Your task to perform on an android device: open app "ColorNote Notepad Notes" (install if not already installed), go to login, and select forgot password Image 0: 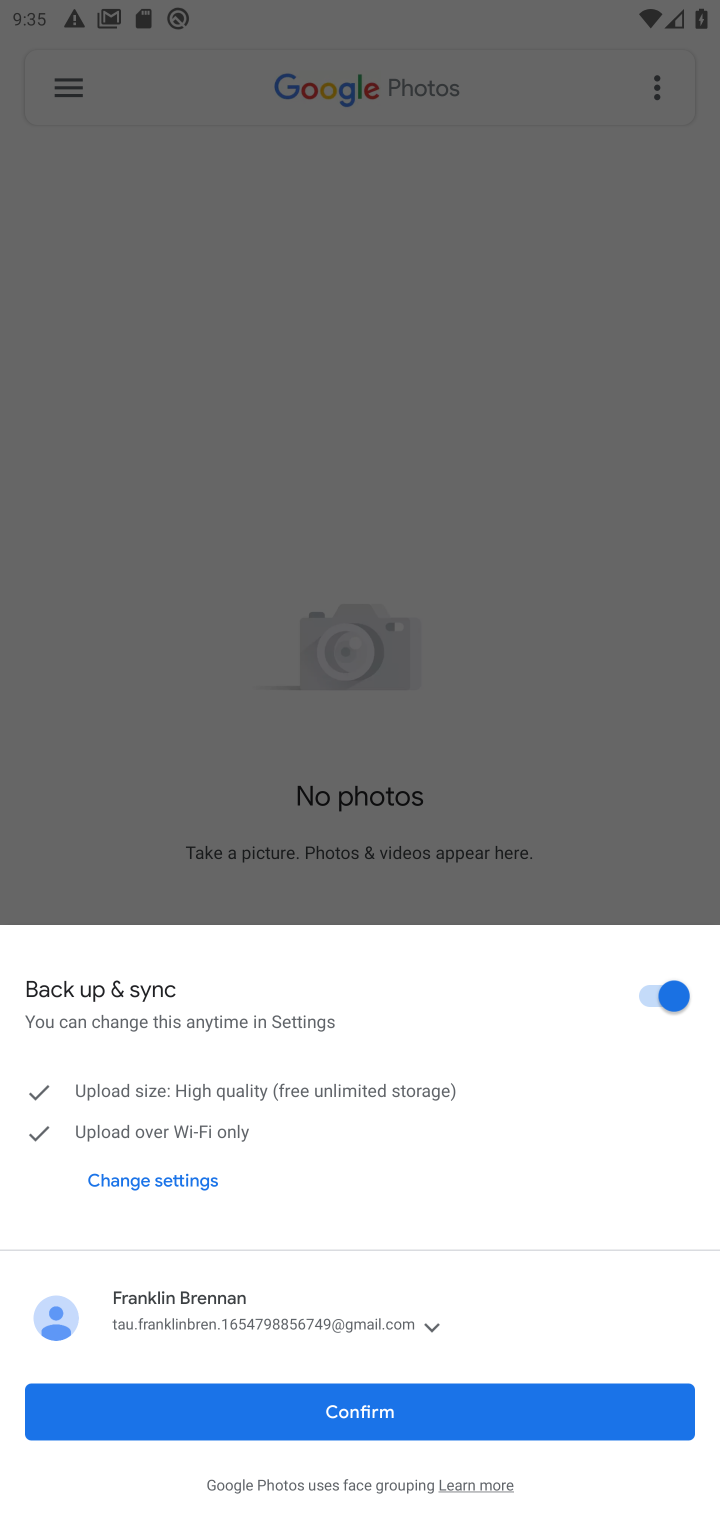
Step 0: press home button
Your task to perform on an android device: open app "ColorNote Notepad Notes" (install if not already installed), go to login, and select forgot password Image 1: 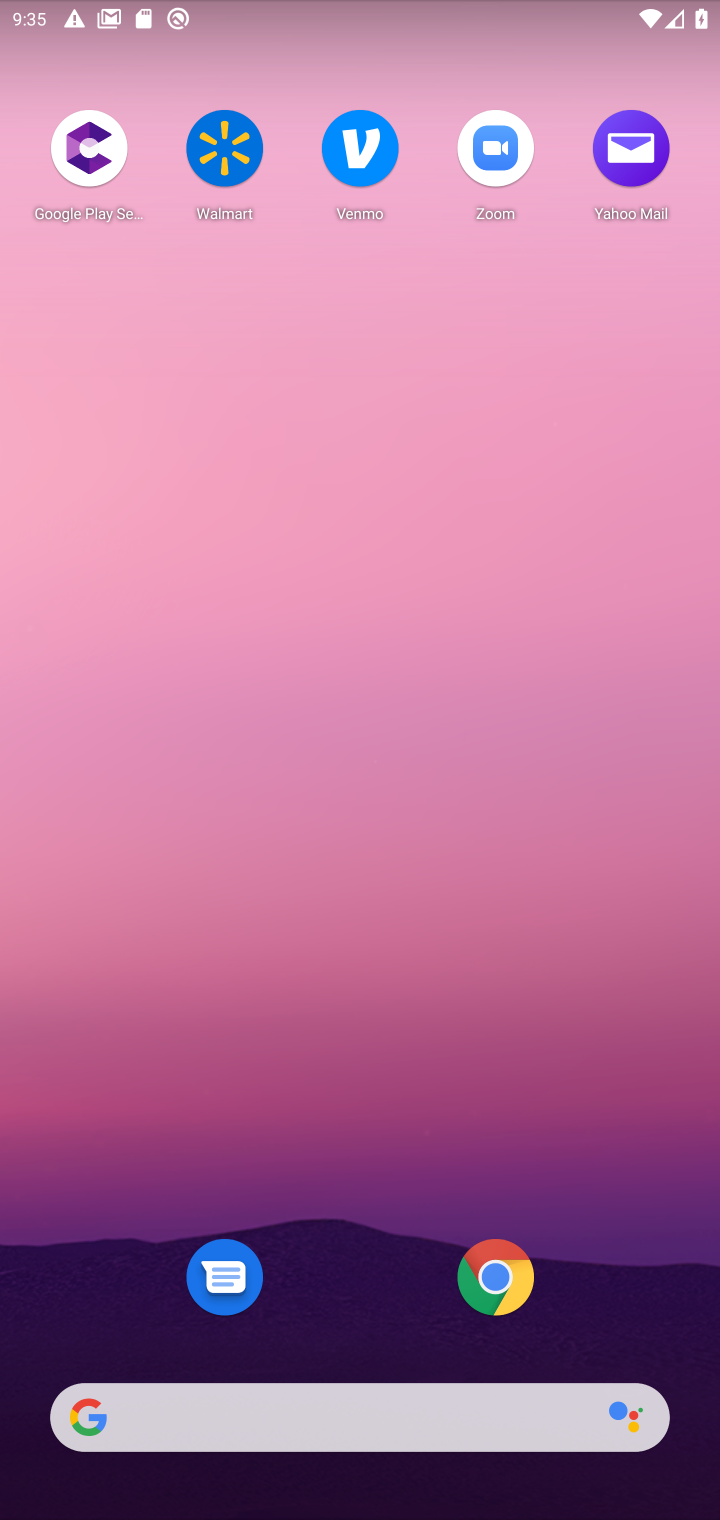
Step 1: drag from (304, 1250) to (129, 351)
Your task to perform on an android device: open app "ColorNote Notepad Notes" (install if not already installed), go to login, and select forgot password Image 2: 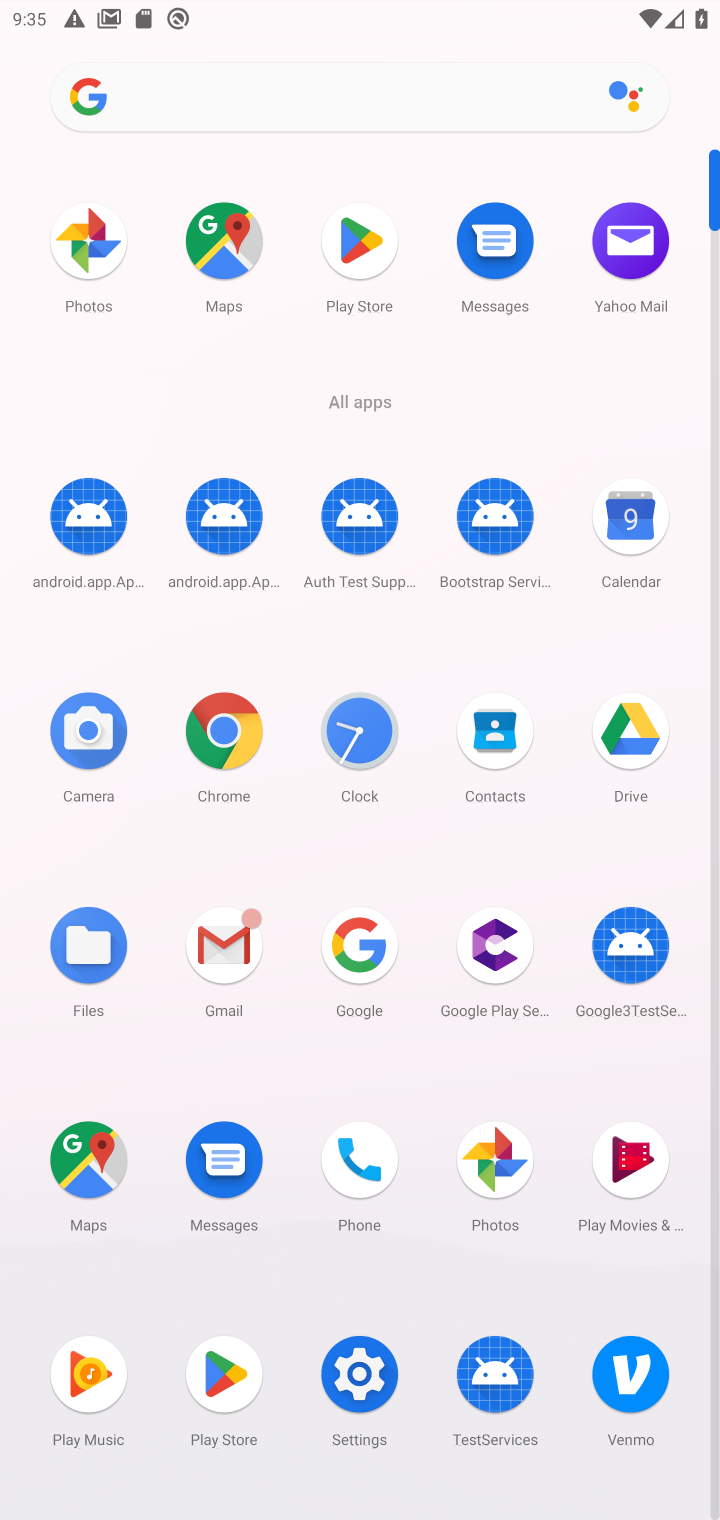
Step 2: click (234, 1403)
Your task to perform on an android device: open app "ColorNote Notepad Notes" (install if not already installed), go to login, and select forgot password Image 3: 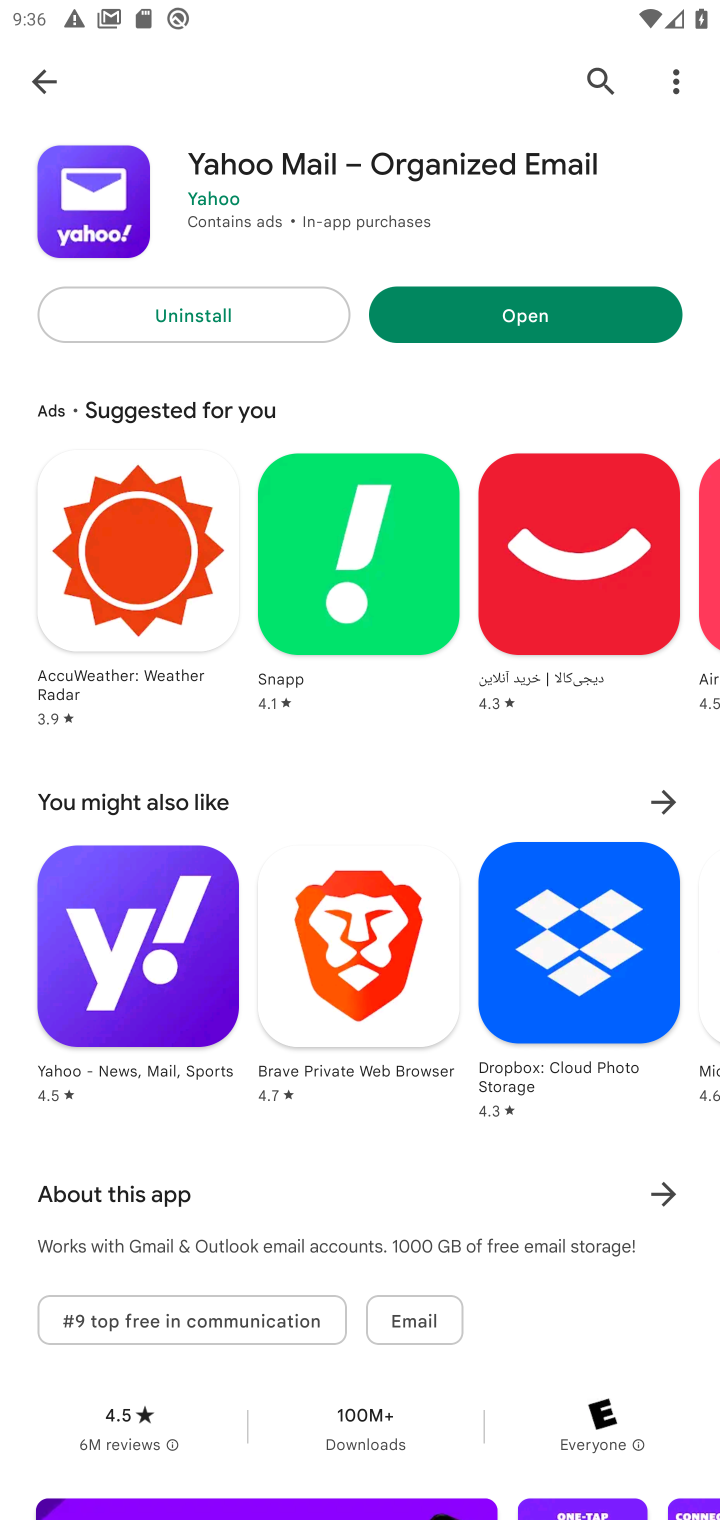
Step 3: click (40, 65)
Your task to perform on an android device: open app "ColorNote Notepad Notes" (install if not already installed), go to login, and select forgot password Image 4: 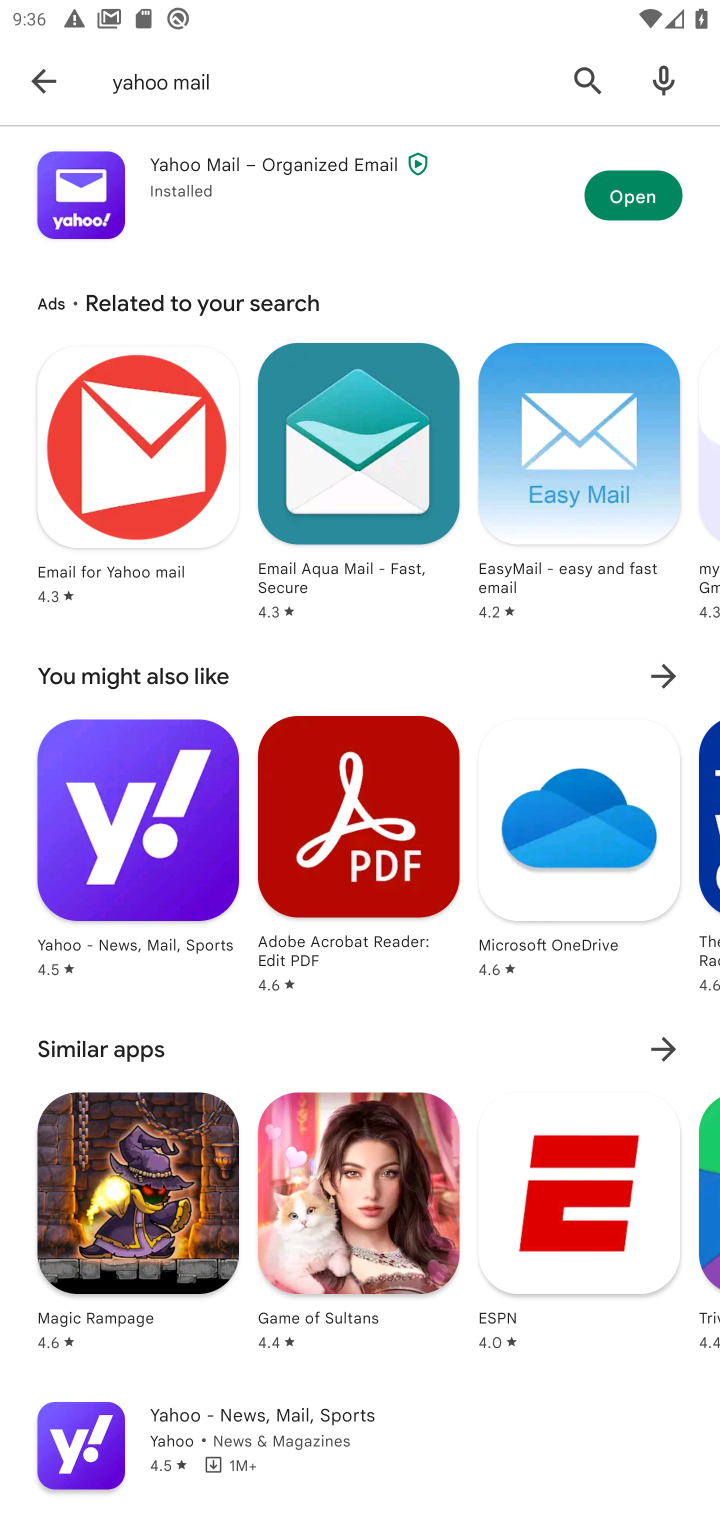
Step 4: click (26, 86)
Your task to perform on an android device: open app "ColorNote Notepad Notes" (install if not already installed), go to login, and select forgot password Image 5: 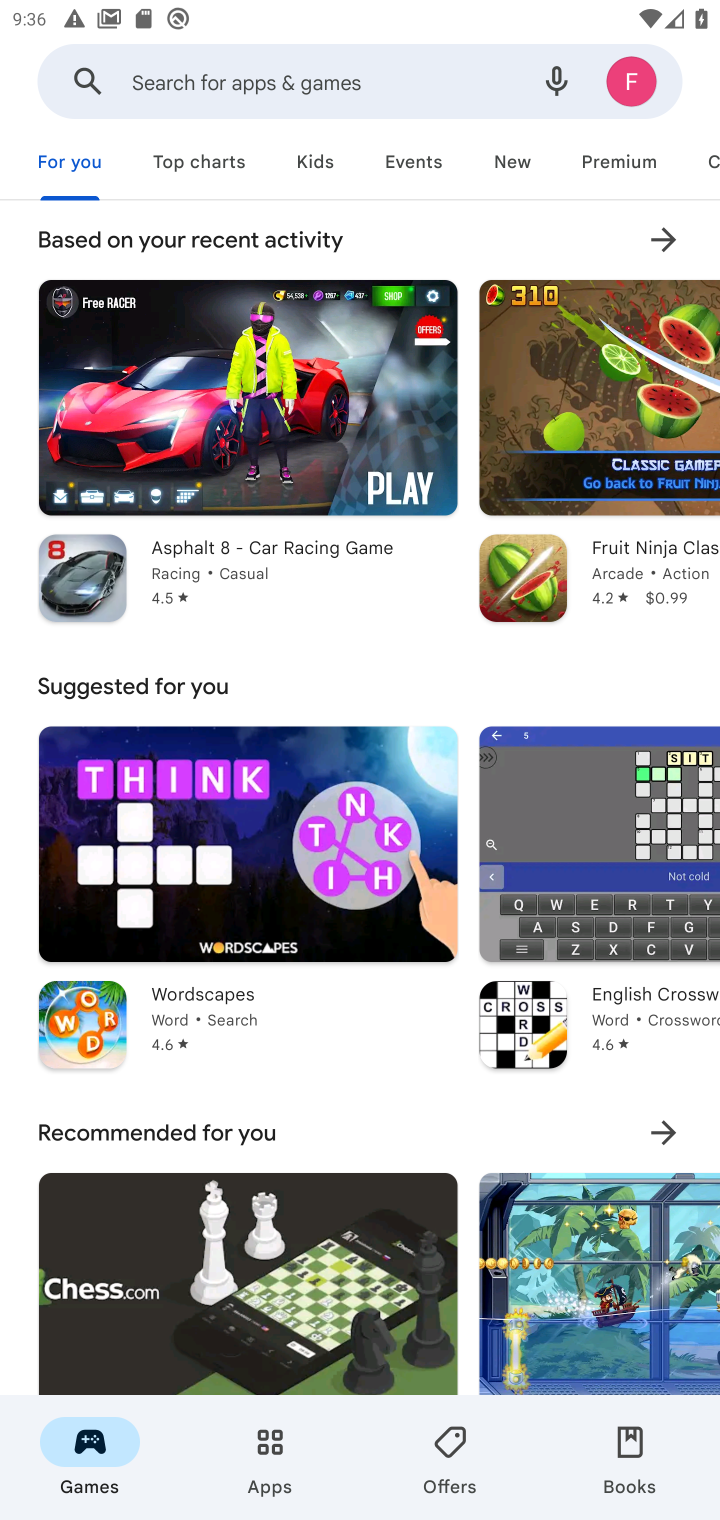
Step 5: click (107, 78)
Your task to perform on an android device: open app "ColorNote Notepad Notes" (install if not already installed), go to login, and select forgot password Image 6: 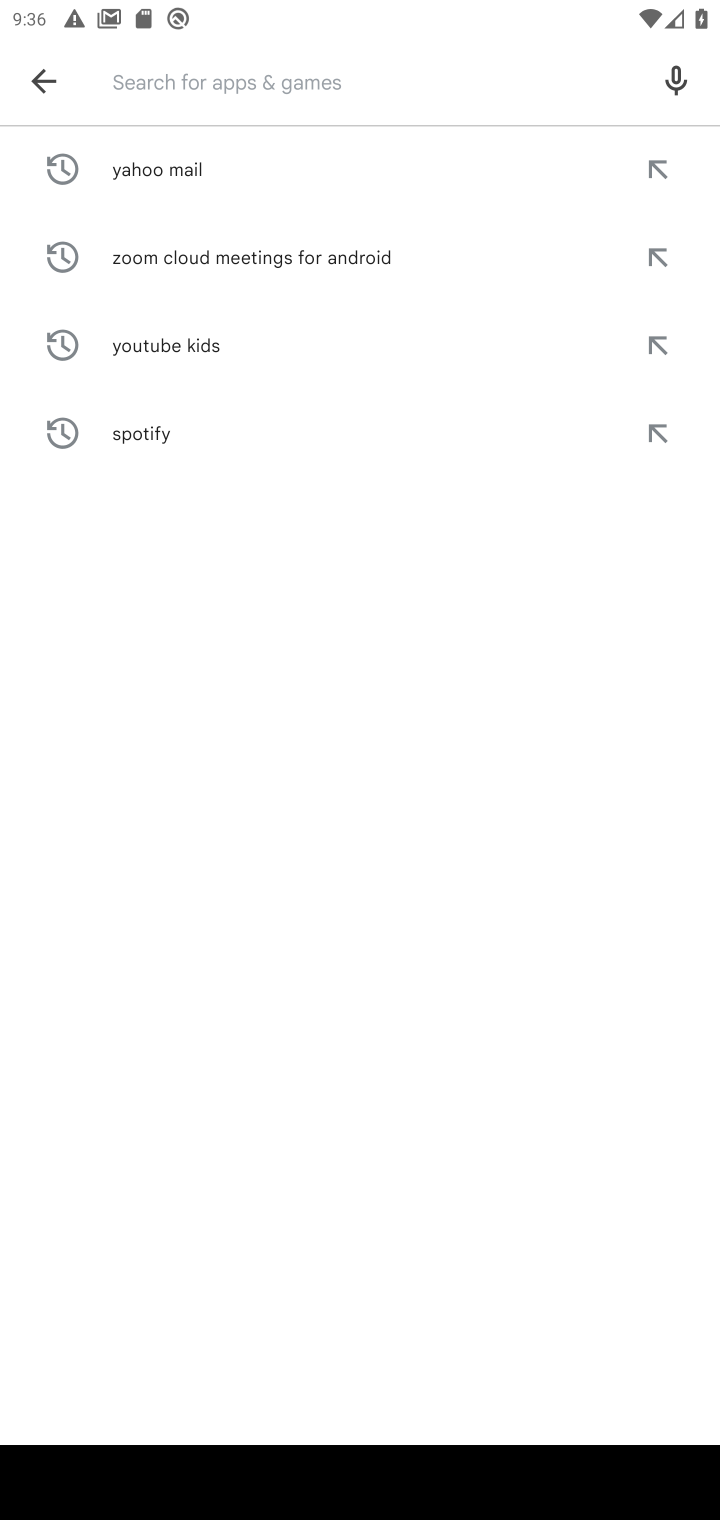
Step 6: type "ColorNote Notepad Notes"
Your task to perform on an android device: open app "ColorNote Notepad Notes" (install if not already installed), go to login, and select forgot password Image 7: 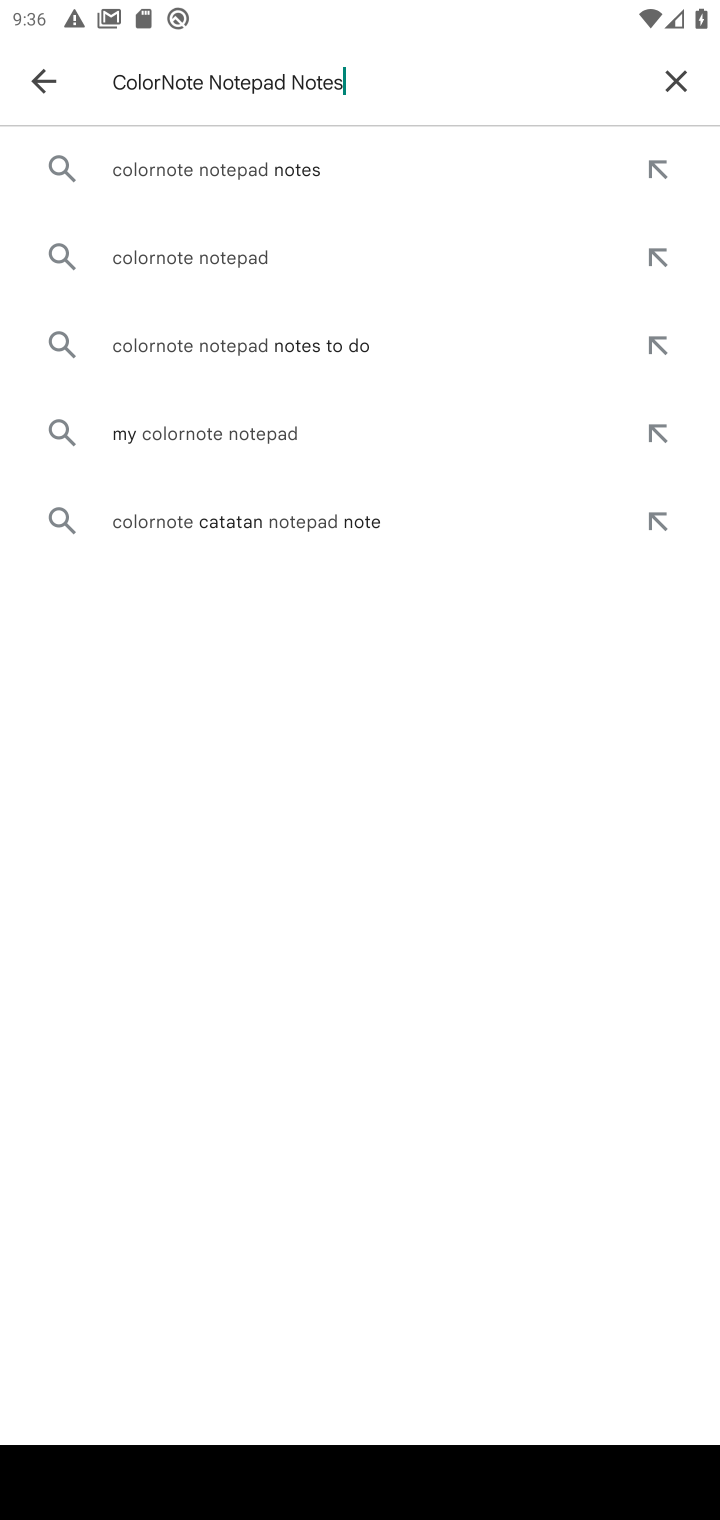
Step 7: type ""
Your task to perform on an android device: open app "ColorNote Notepad Notes" (install if not already installed), go to login, and select forgot password Image 8: 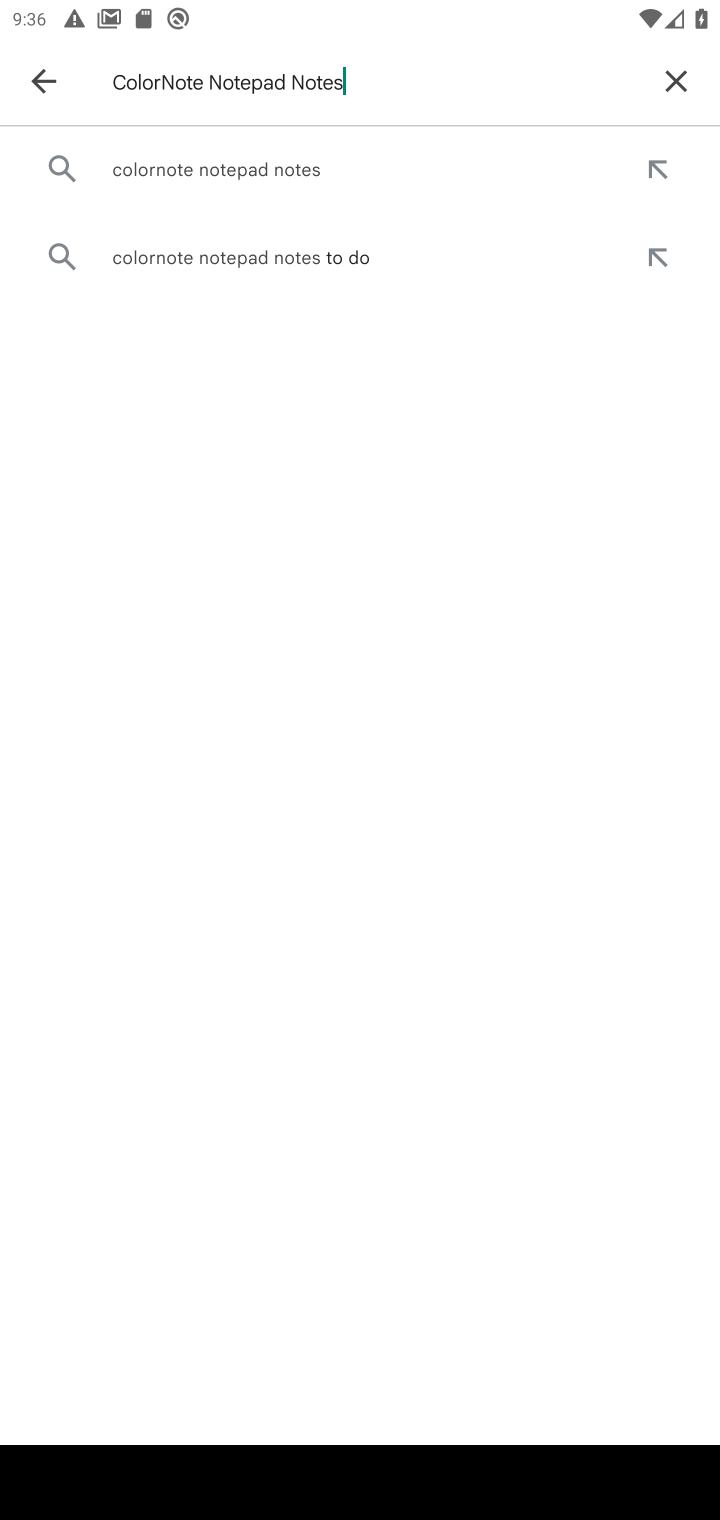
Step 8: click (182, 162)
Your task to perform on an android device: open app "ColorNote Notepad Notes" (install if not already installed), go to login, and select forgot password Image 9: 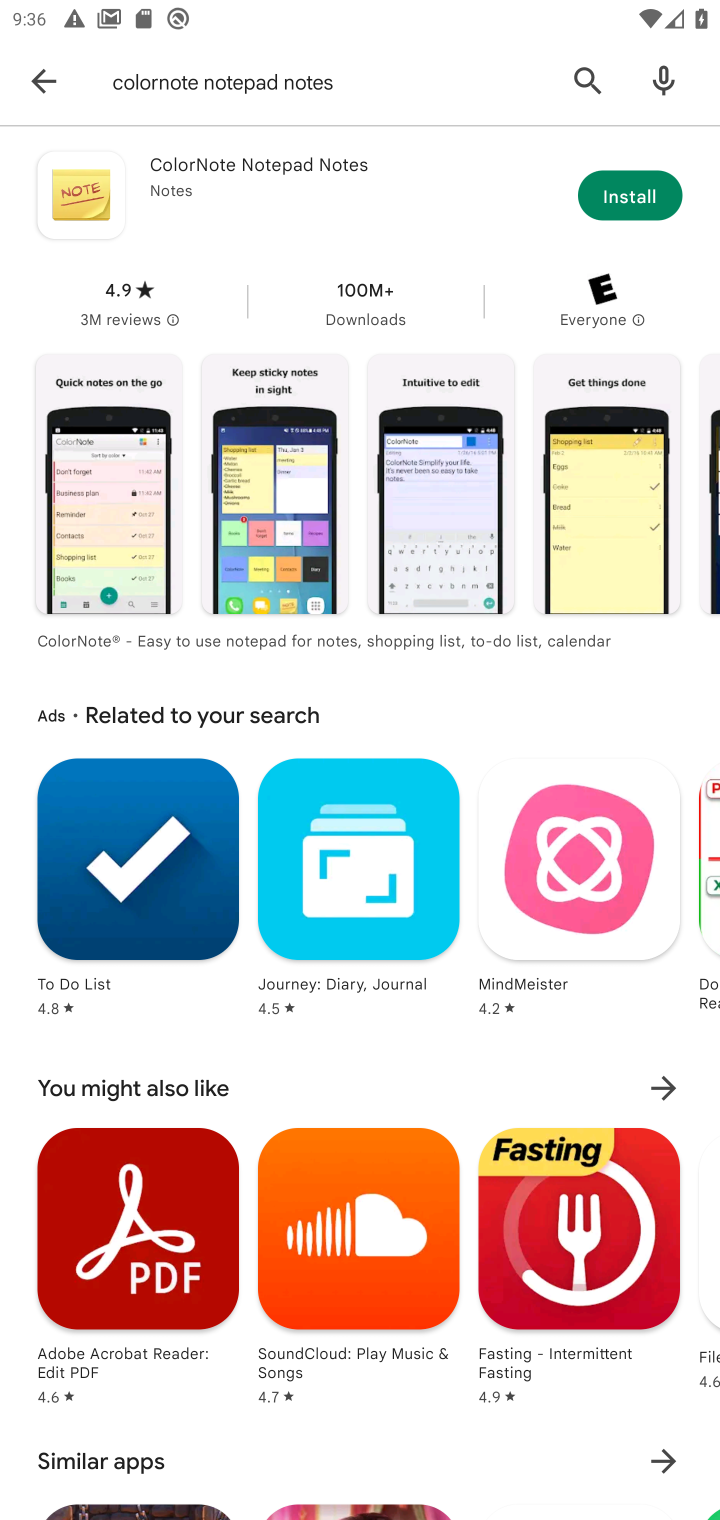
Step 9: click (261, 201)
Your task to perform on an android device: open app "ColorNote Notepad Notes" (install if not already installed), go to login, and select forgot password Image 10: 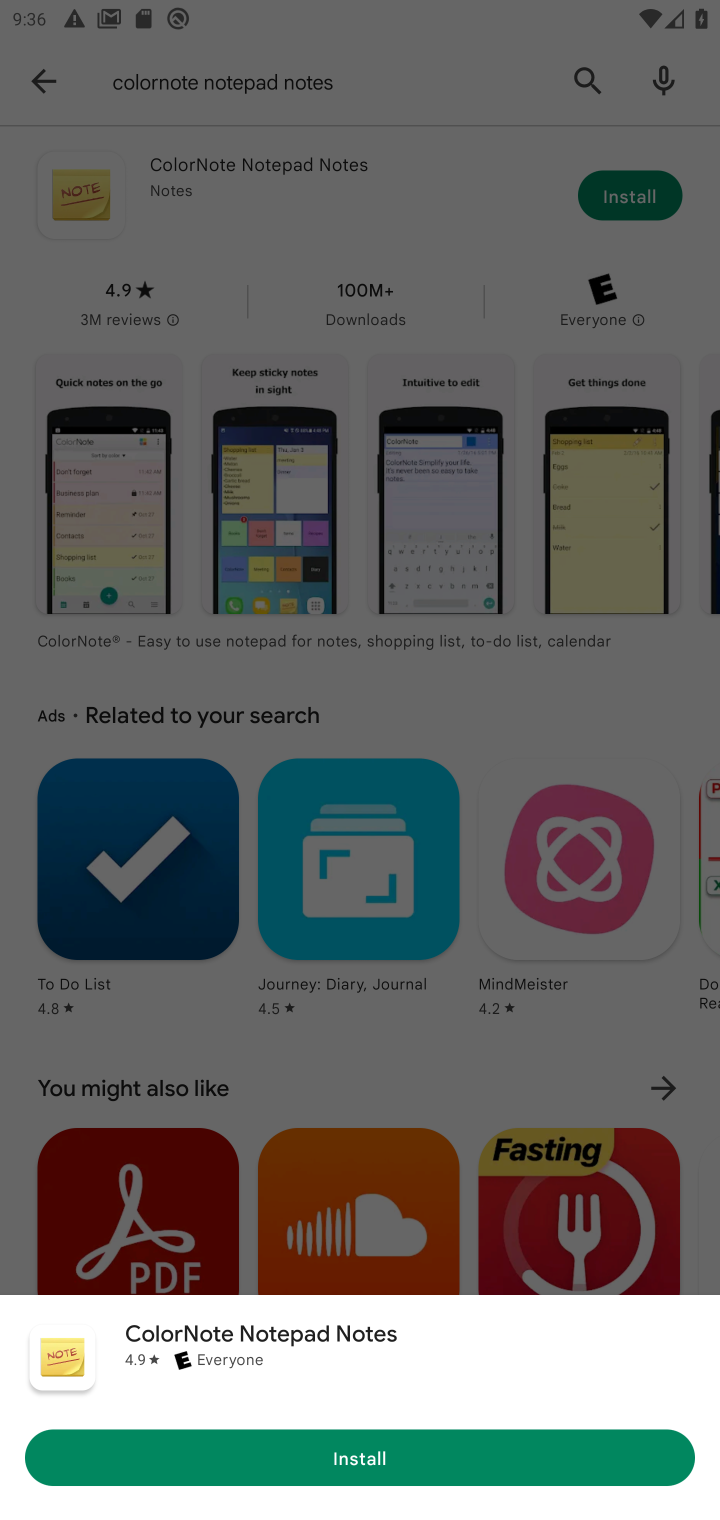
Step 10: click (366, 1472)
Your task to perform on an android device: open app "ColorNote Notepad Notes" (install if not already installed), go to login, and select forgot password Image 11: 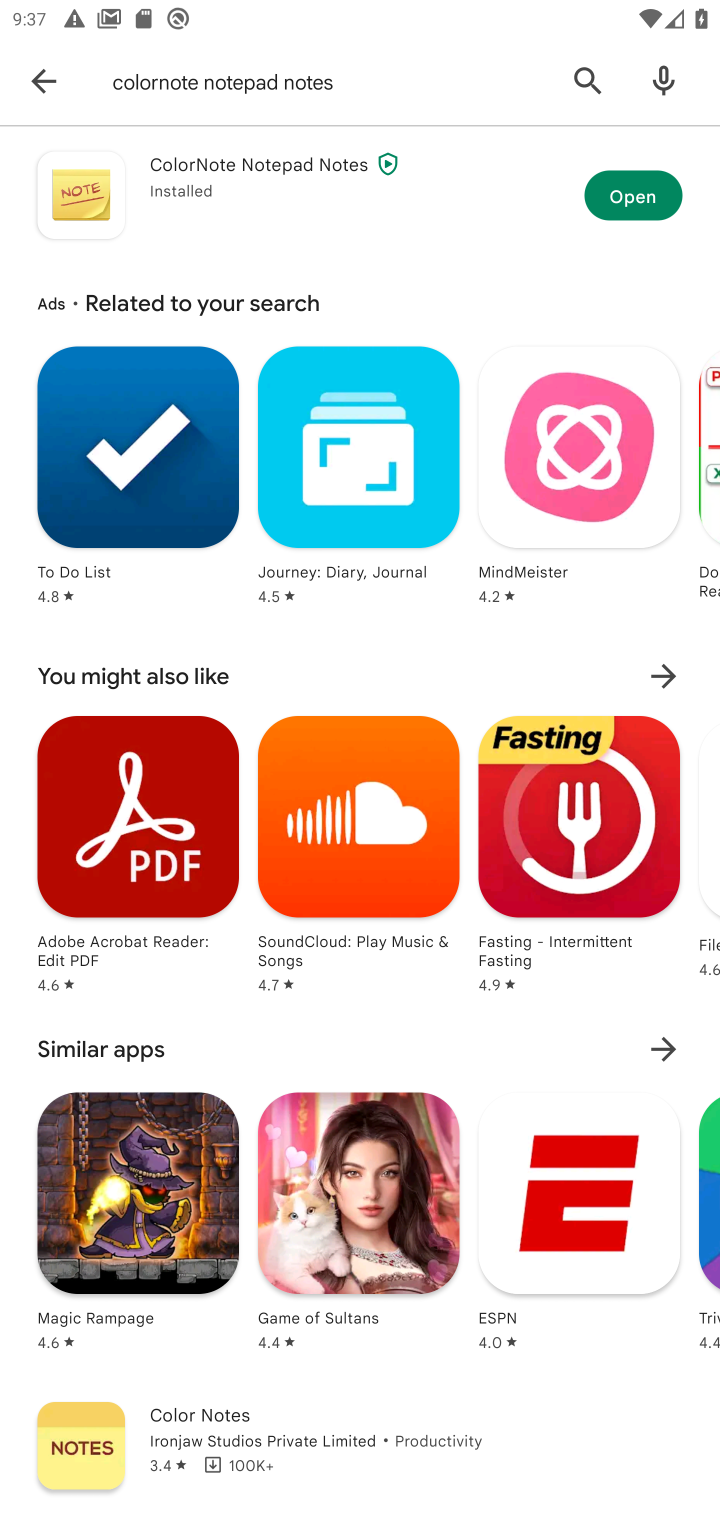
Step 11: click (612, 210)
Your task to perform on an android device: open app "ColorNote Notepad Notes" (install if not already installed), go to login, and select forgot password Image 12: 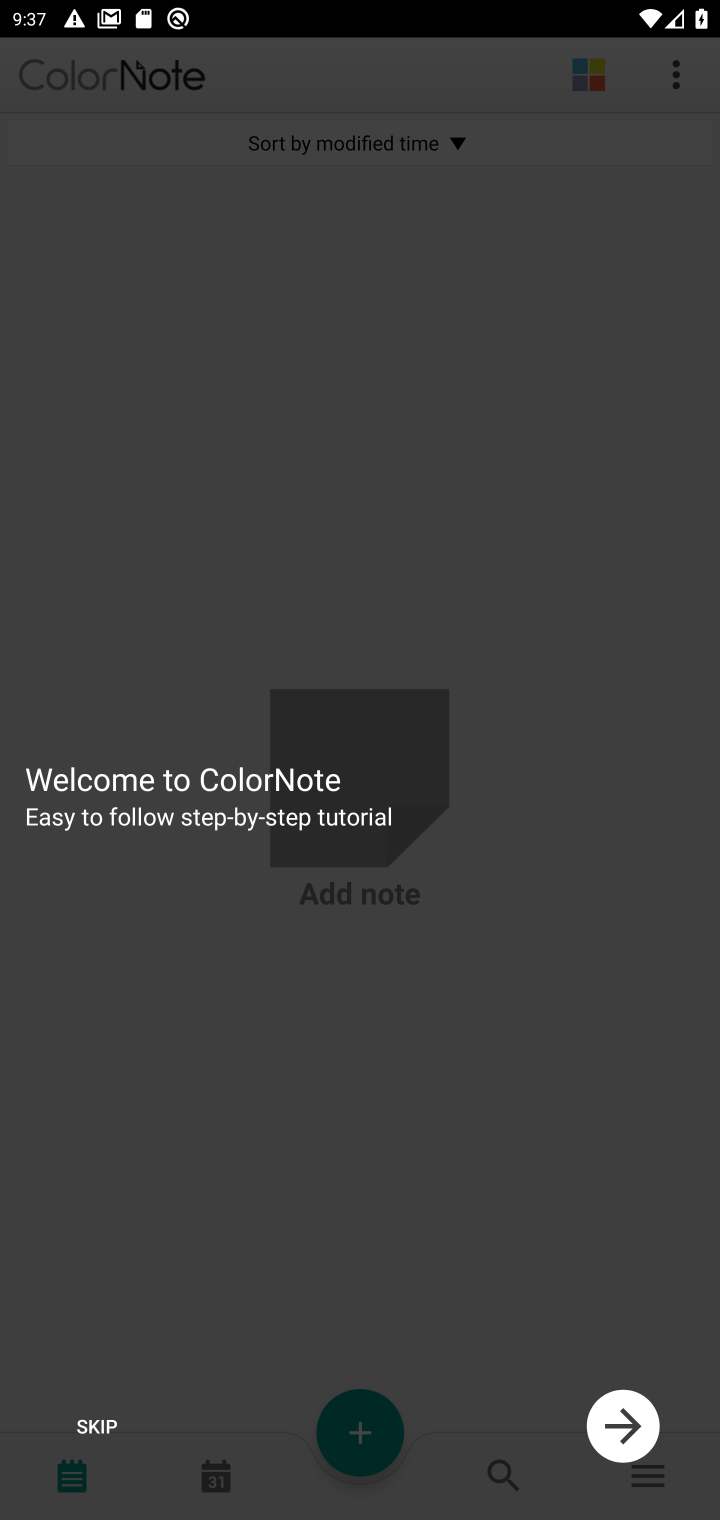
Step 12: drag from (417, 992) to (327, 992)
Your task to perform on an android device: open app "ColorNote Notepad Notes" (install if not already installed), go to login, and select forgot password Image 13: 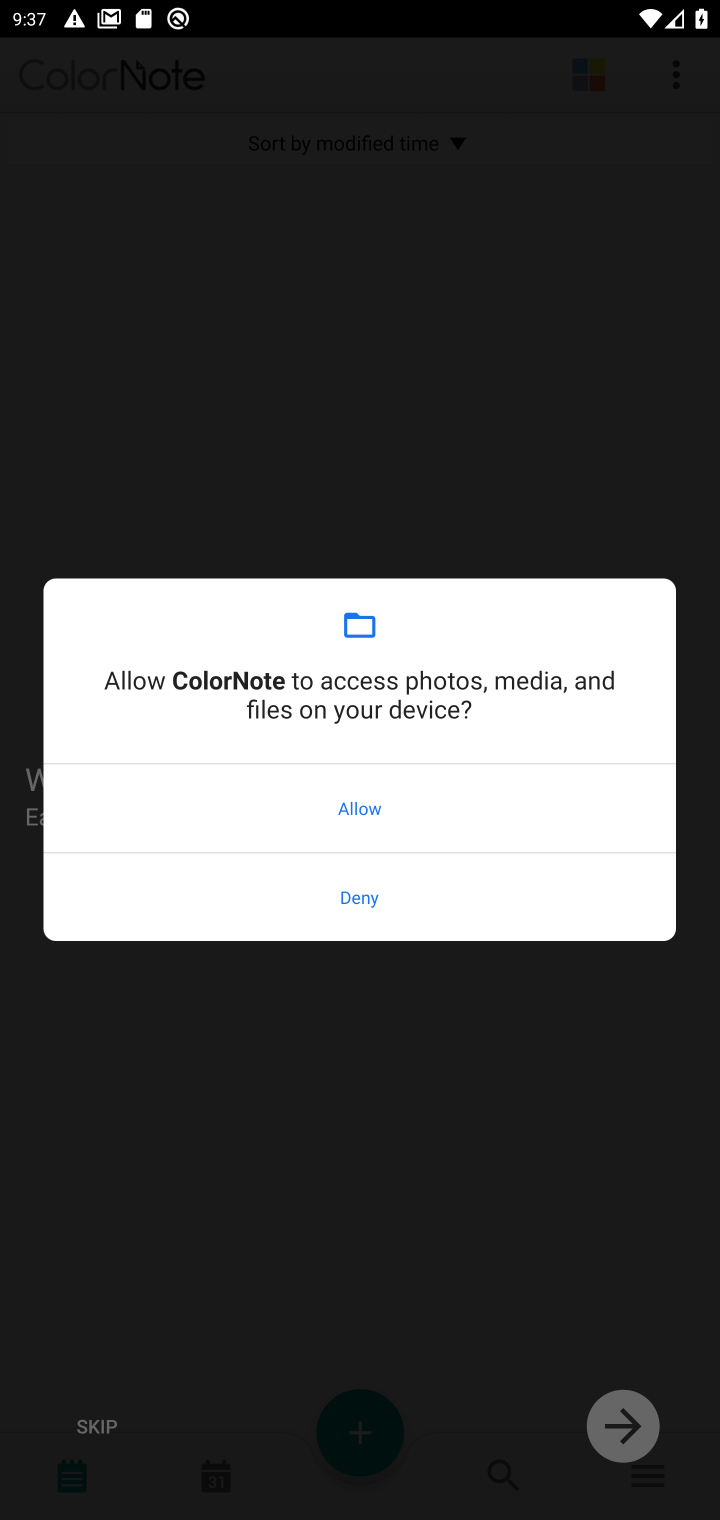
Step 13: click (402, 776)
Your task to perform on an android device: open app "ColorNote Notepad Notes" (install if not already installed), go to login, and select forgot password Image 14: 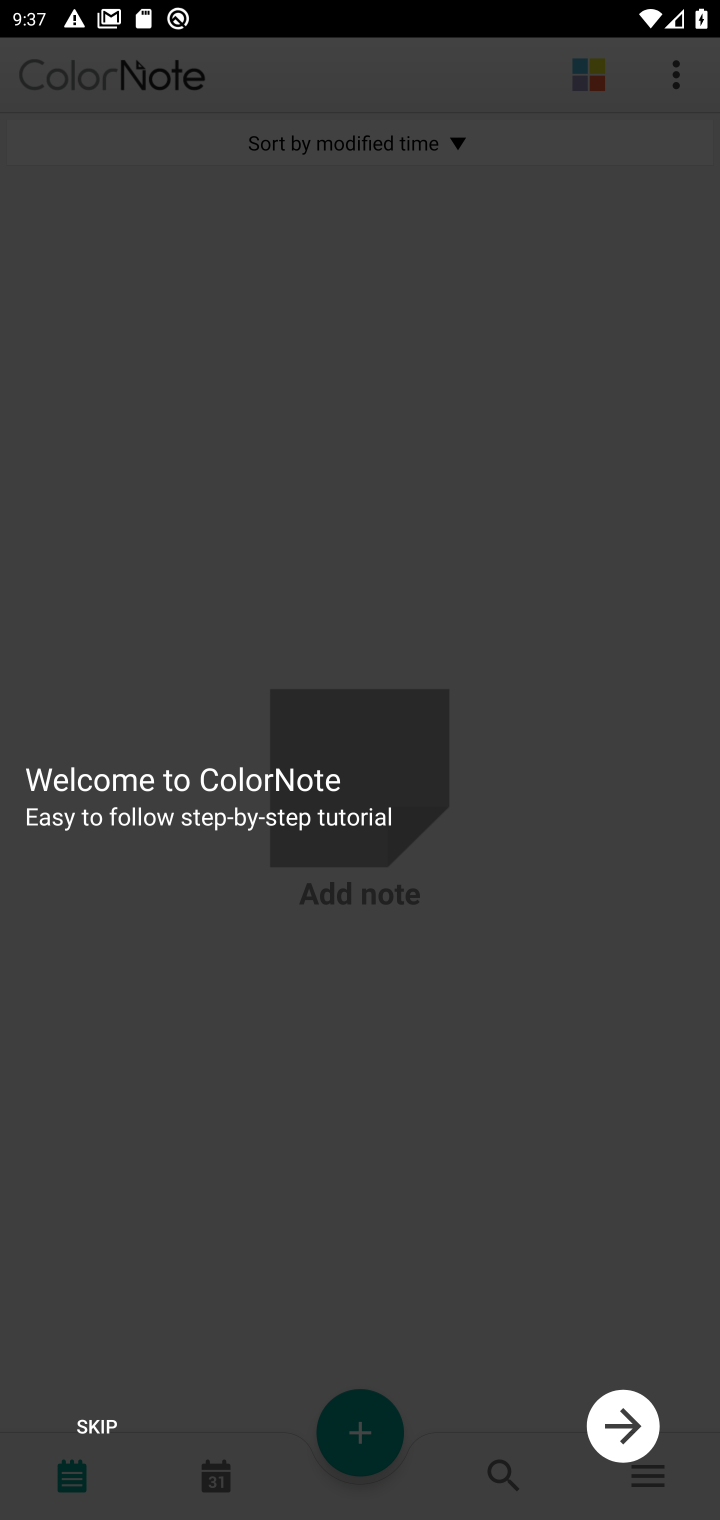
Step 14: click (606, 1457)
Your task to perform on an android device: open app "ColorNote Notepad Notes" (install if not already installed), go to login, and select forgot password Image 15: 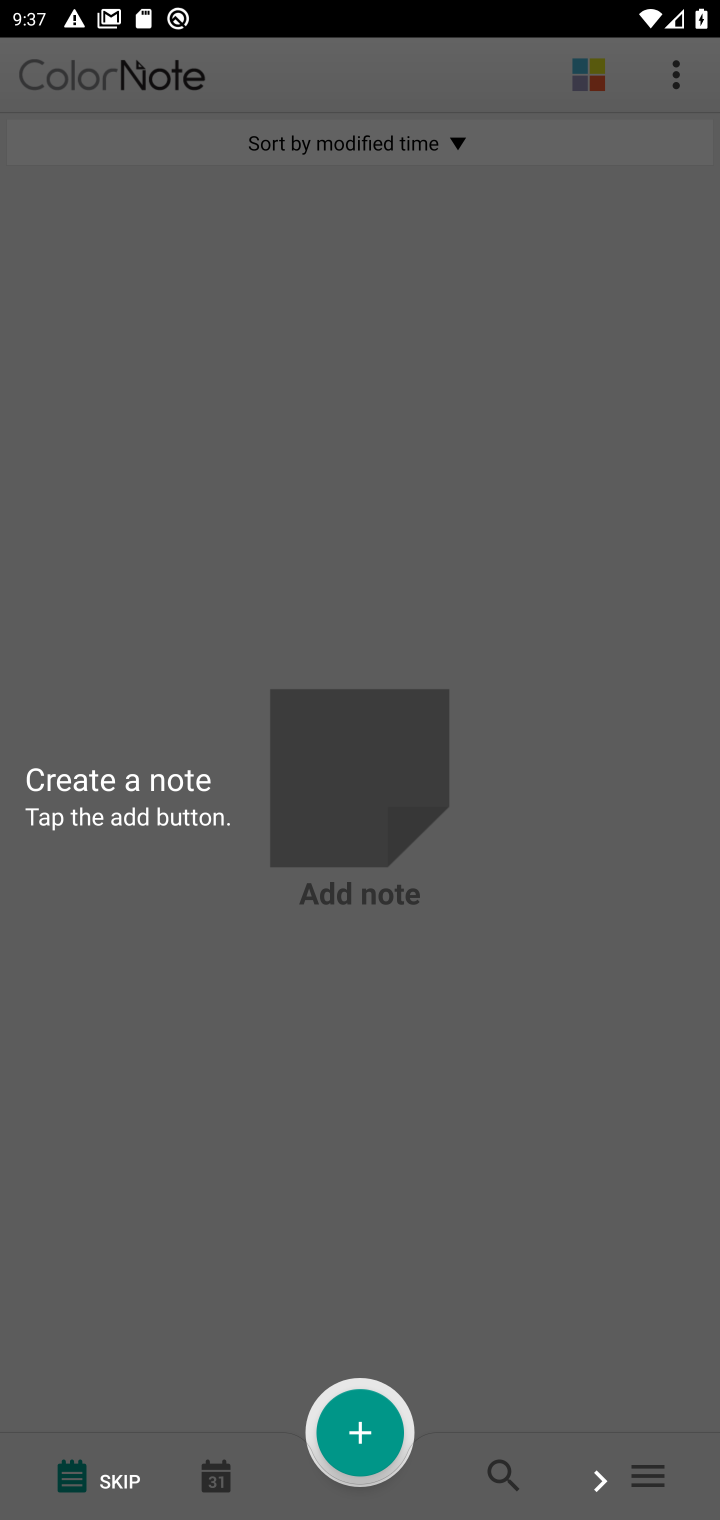
Step 15: click (88, 1475)
Your task to perform on an android device: open app "ColorNote Notepad Notes" (install if not already installed), go to login, and select forgot password Image 16: 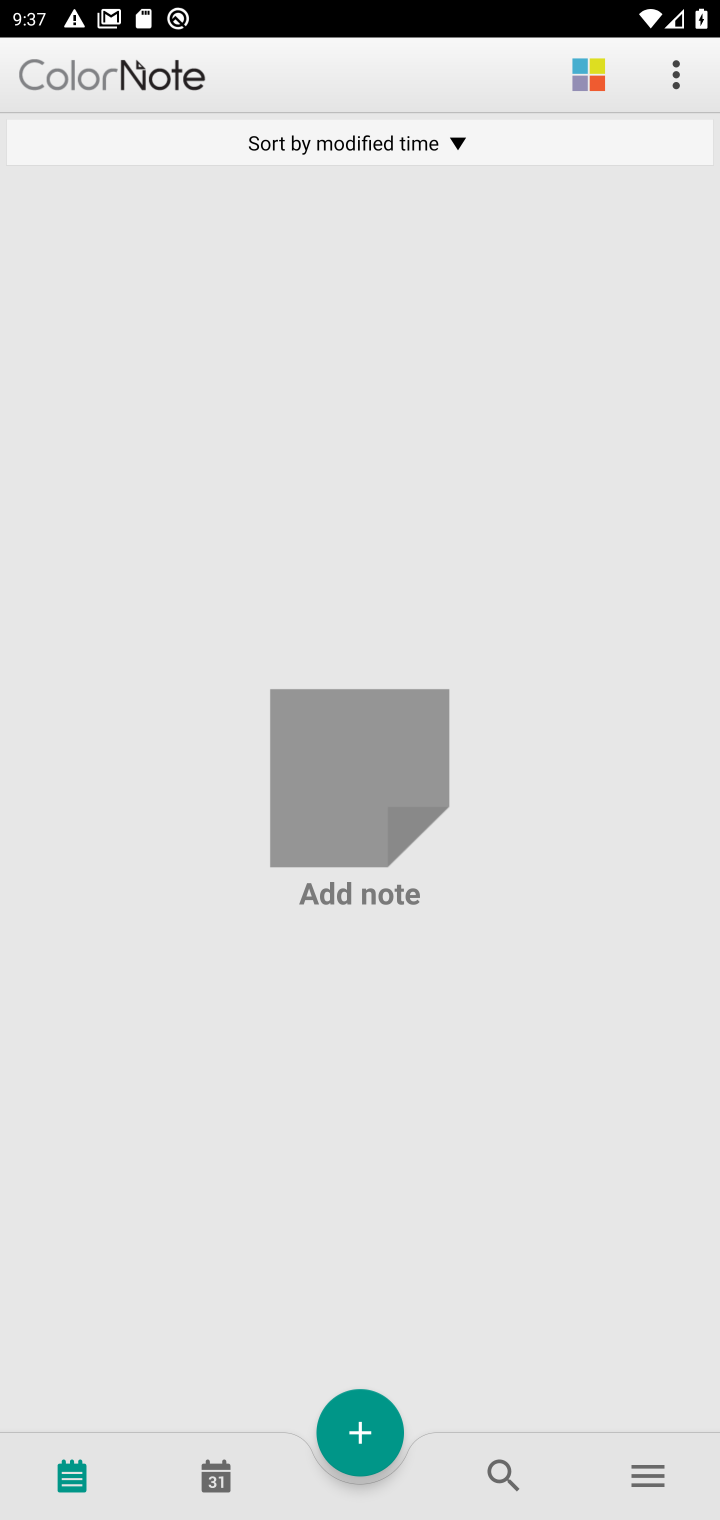
Step 16: click (684, 70)
Your task to perform on an android device: open app "ColorNote Notepad Notes" (install if not already installed), go to login, and select forgot password Image 17: 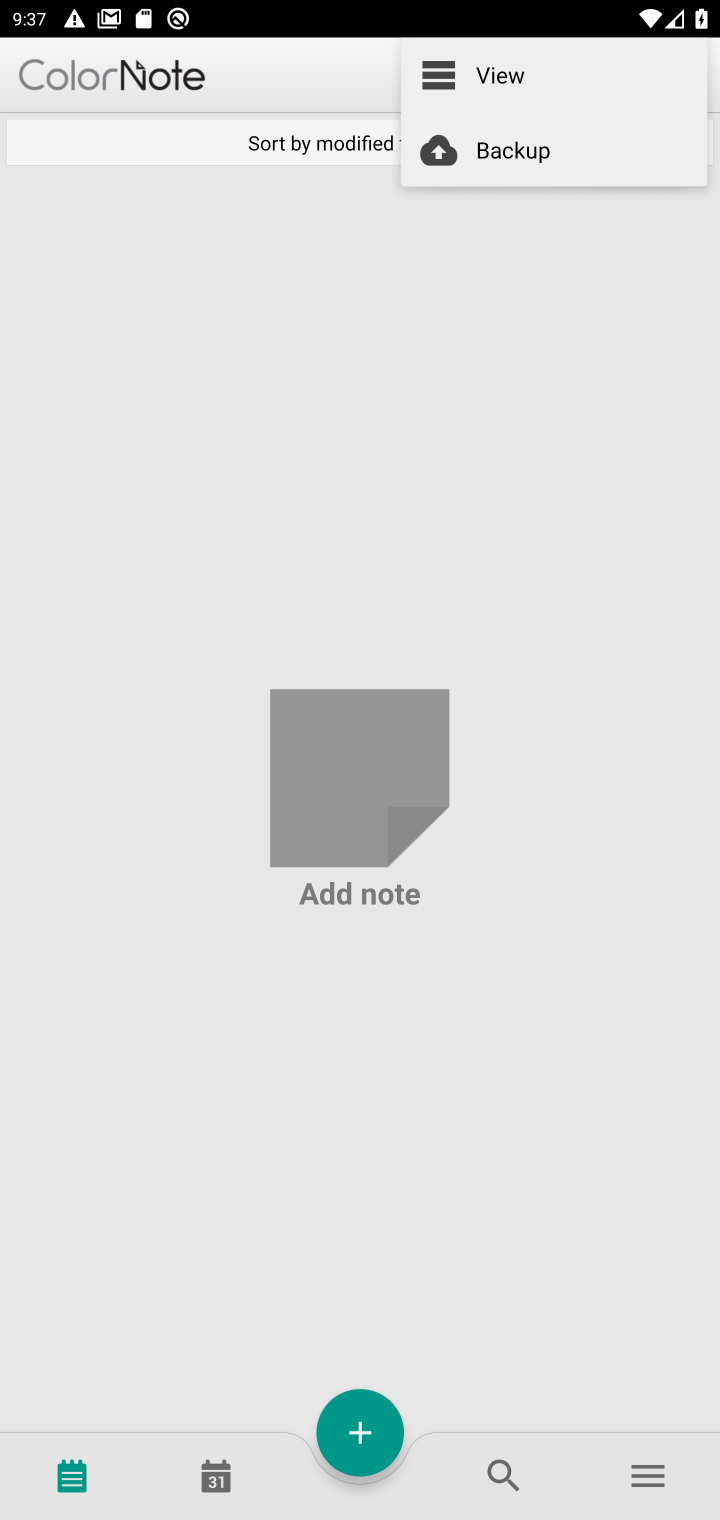
Step 17: click (643, 352)
Your task to perform on an android device: open app "ColorNote Notepad Notes" (install if not already installed), go to login, and select forgot password Image 18: 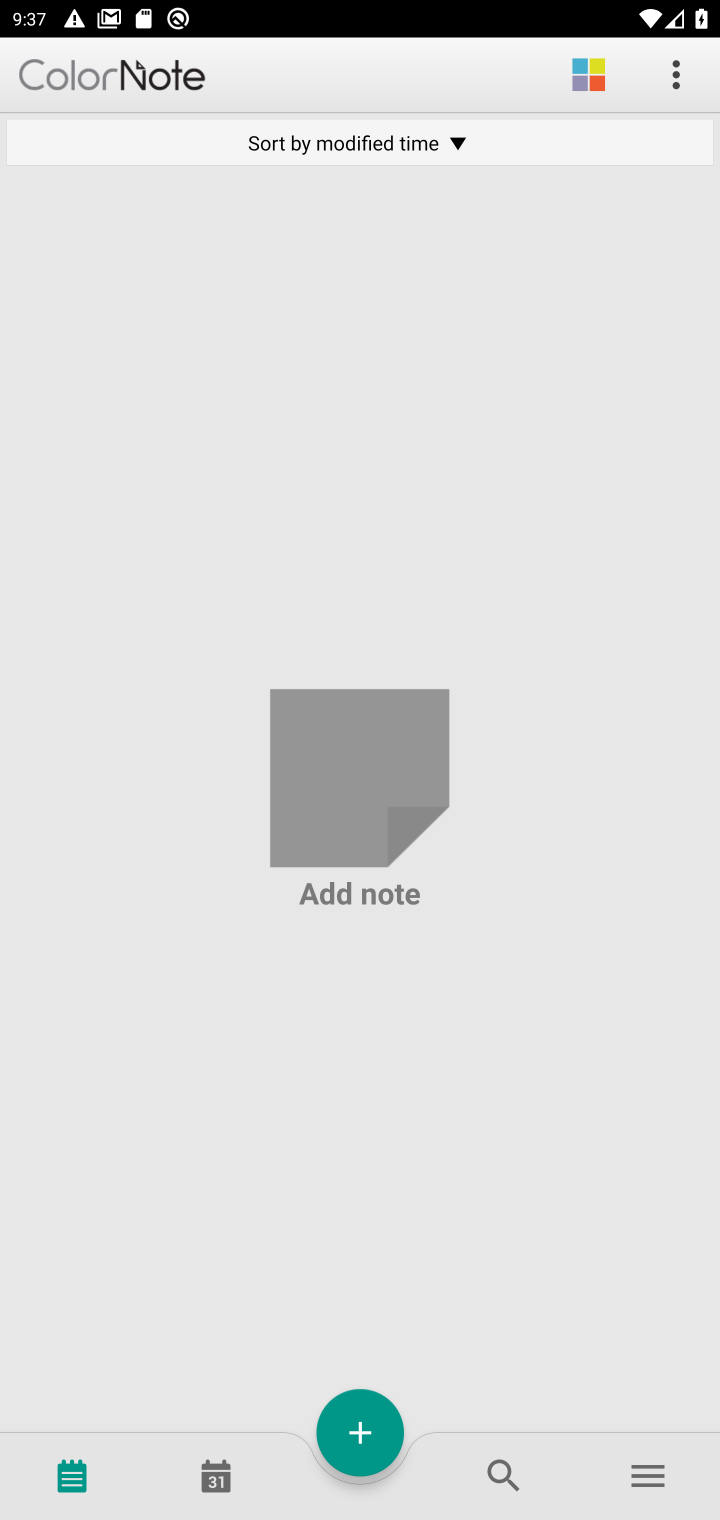
Step 18: click (641, 1493)
Your task to perform on an android device: open app "ColorNote Notepad Notes" (install if not already installed), go to login, and select forgot password Image 19: 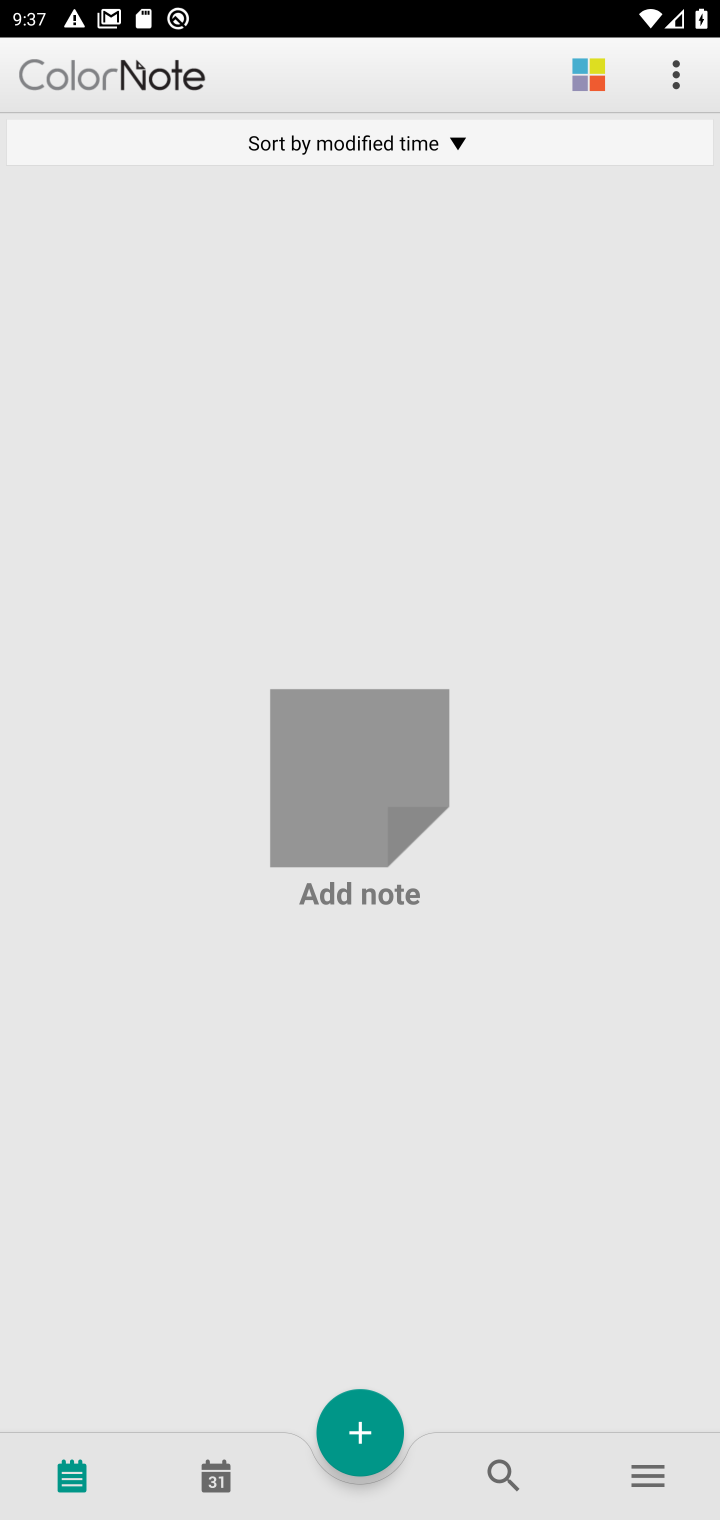
Step 19: click (649, 1452)
Your task to perform on an android device: open app "ColorNote Notepad Notes" (install if not already installed), go to login, and select forgot password Image 20: 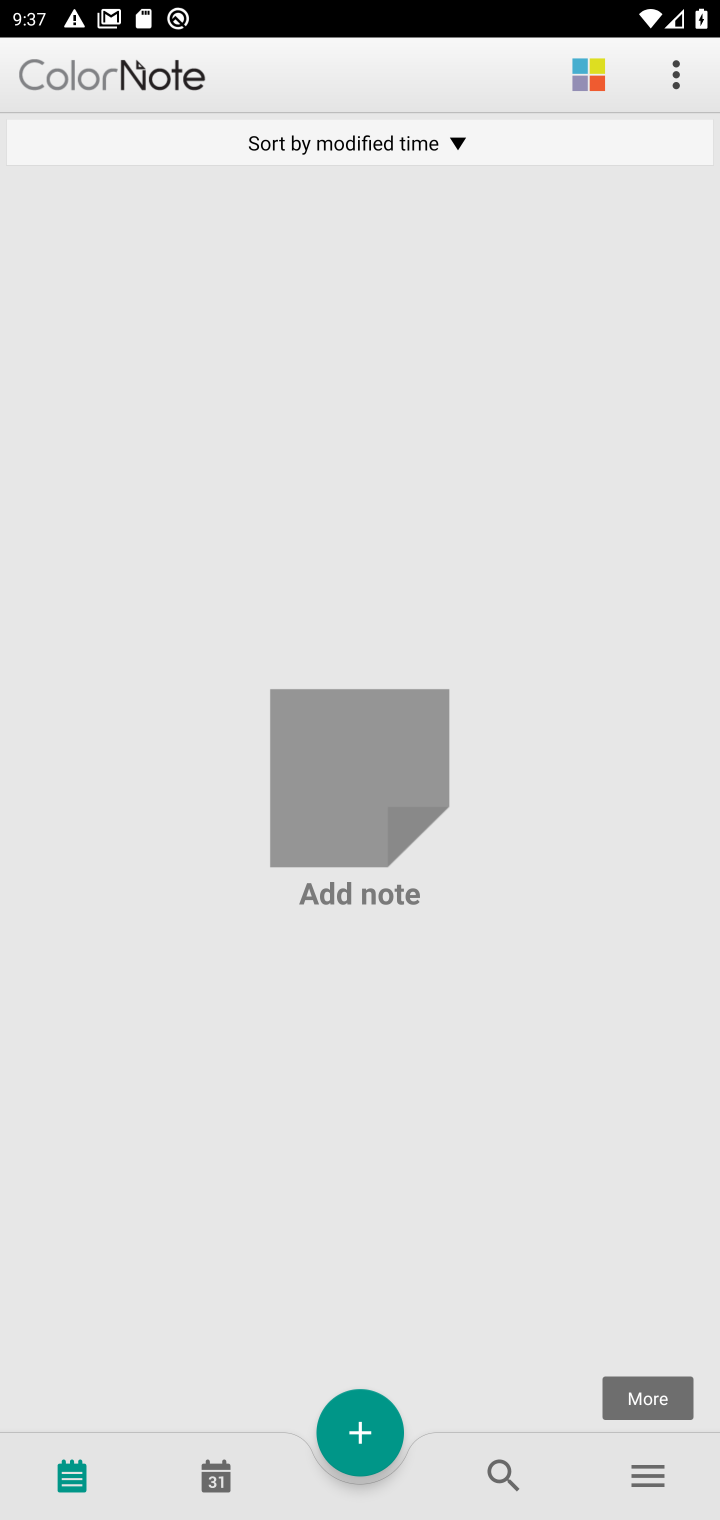
Step 20: click (633, 1465)
Your task to perform on an android device: open app "ColorNote Notepad Notes" (install if not already installed), go to login, and select forgot password Image 21: 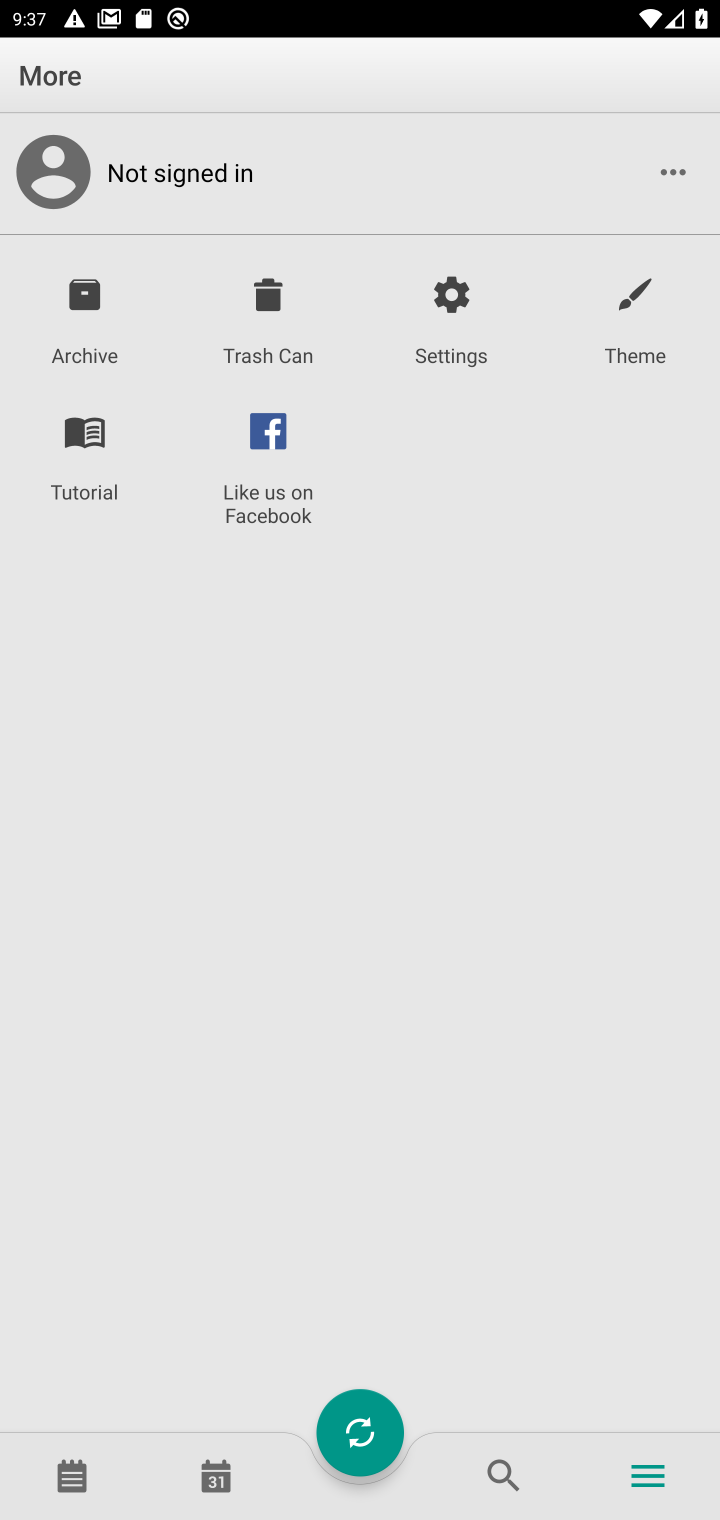
Step 21: click (483, 306)
Your task to perform on an android device: open app "ColorNote Notepad Notes" (install if not already installed), go to login, and select forgot password Image 22: 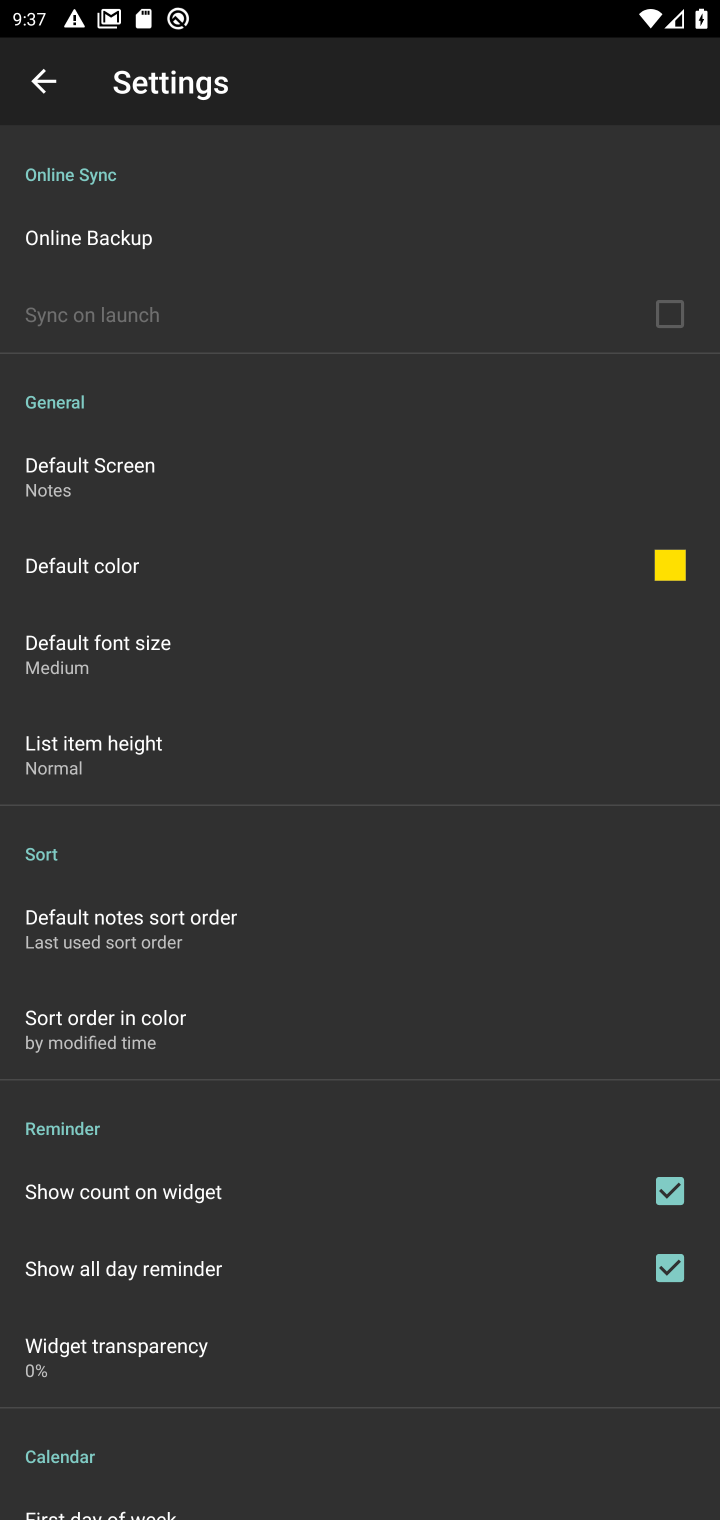
Step 22: click (21, 77)
Your task to perform on an android device: open app "ColorNote Notepad Notes" (install if not already installed), go to login, and select forgot password Image 23: 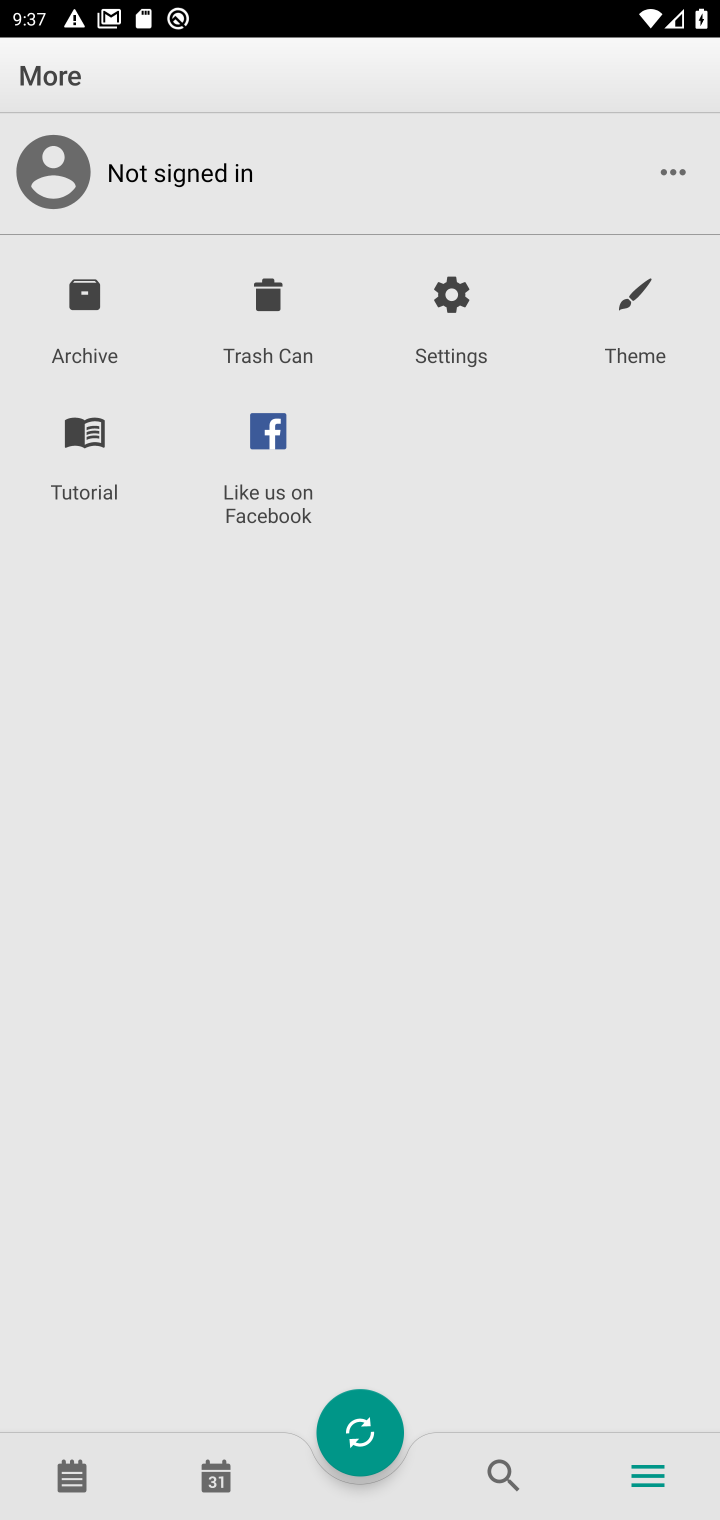
Step 23: click (110, 157)
Your task to perform on an android device: open app "ColorNote Notepad Notes" (install if not already installed), go to login, and select forgot password Image 24: 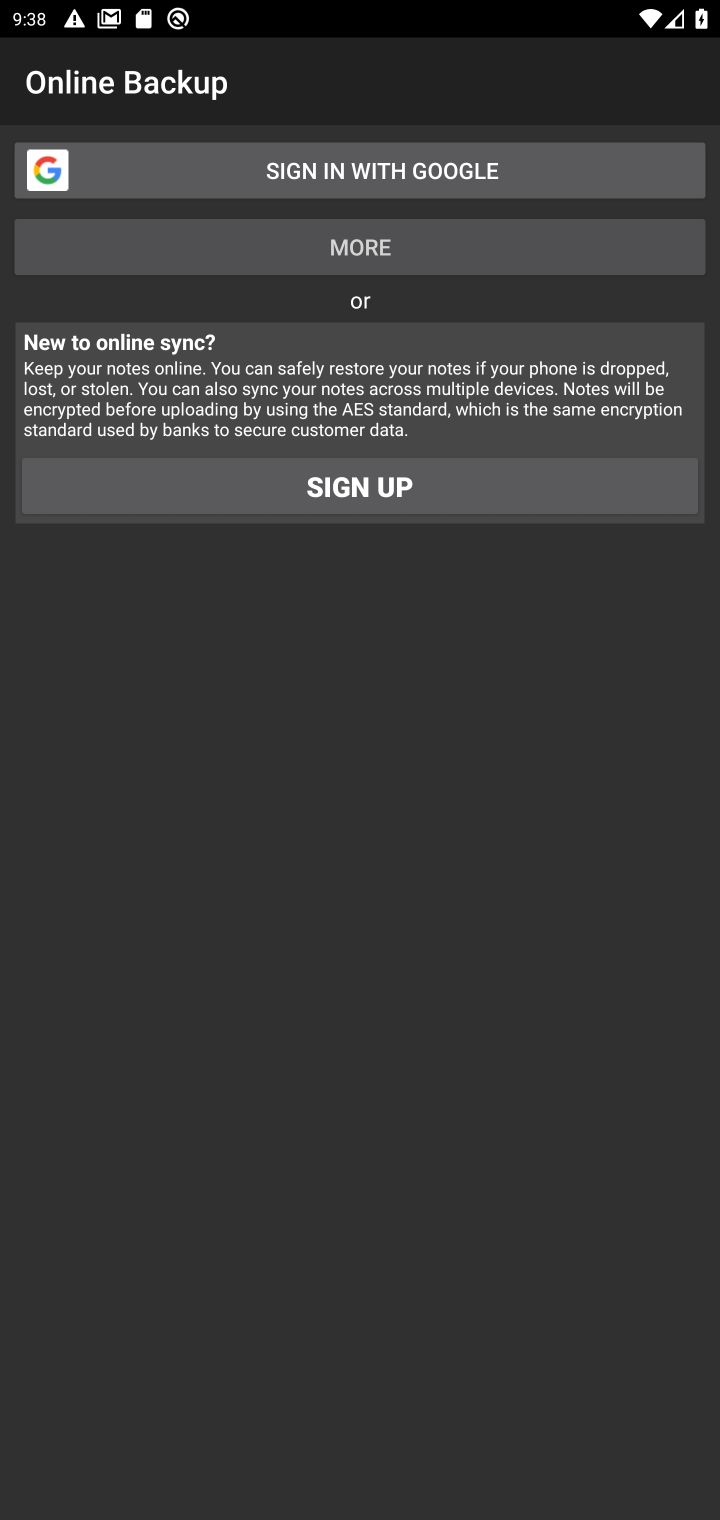
Step 24: click (114, 171)
Your task to perform on an android device: open app "ColorNote Notepad Notes" (install if not already installed), go to login, and select forgot password Image 25: 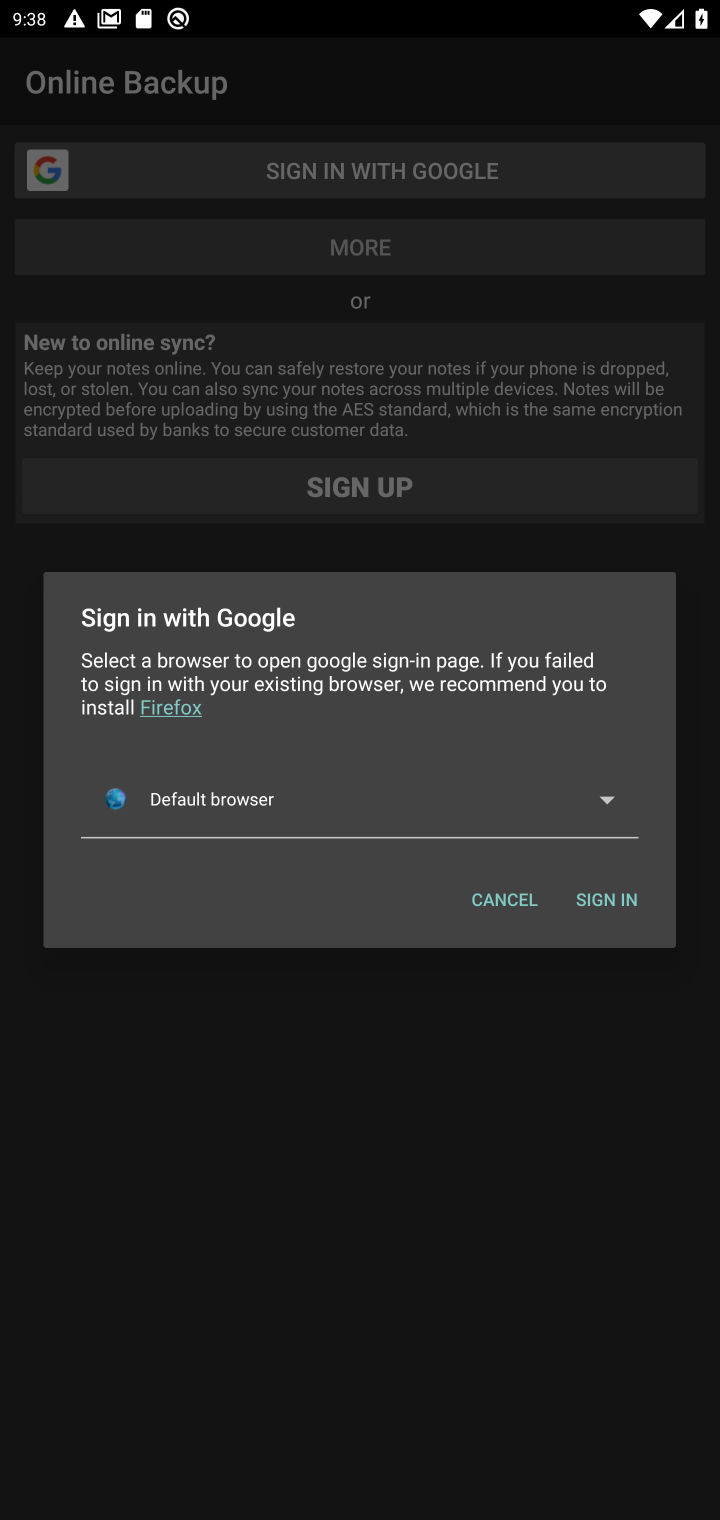
Step 25: task complete